Your task to perform on an android device: set the stopwatch Image 0: 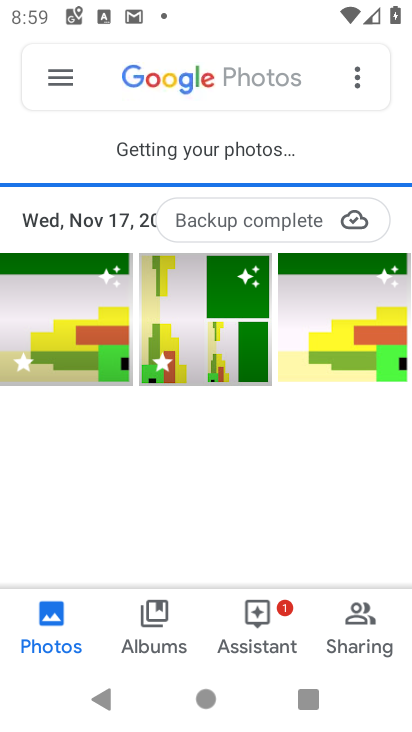
Step 0: click (204, 694)
Your task to perform on an android device: set the stopwatch Image 1: 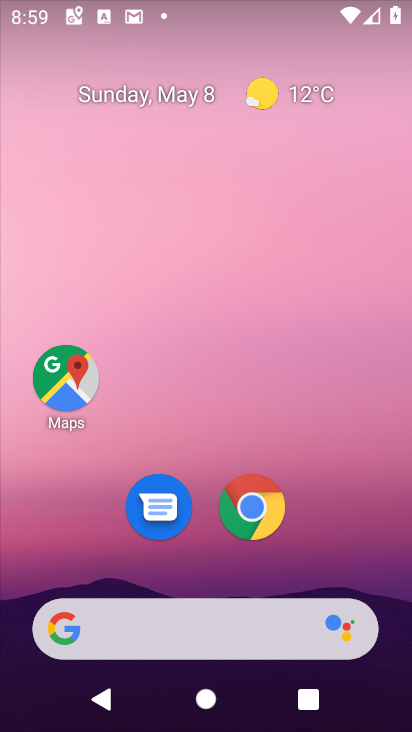
Step 1: drag from (266, 695) to (179, 7)
Your task to perform on an android device: set the stopwatch Image 2: 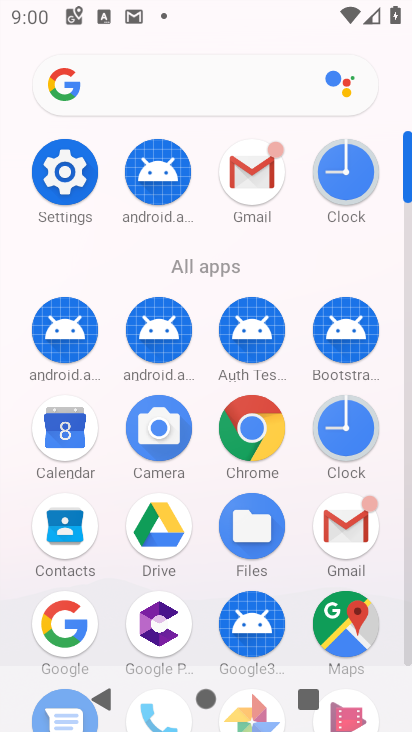
Step 2: click (352, 194)
Your task to perform on an android device: set the stopwatch Image 3: 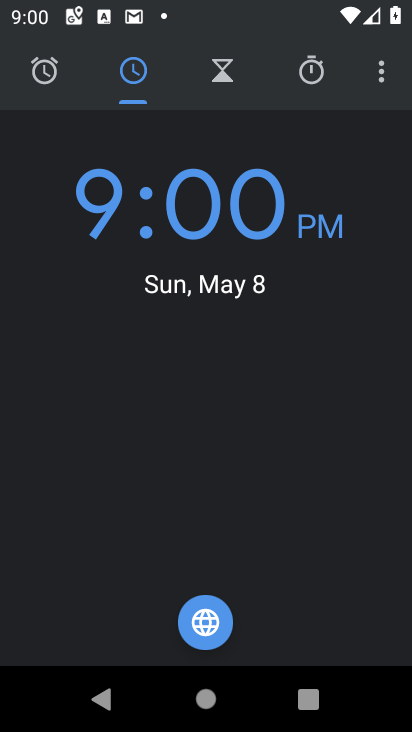
Step 3: click (321, 65)
Your task to perform on an android device: set the stopwatch Image 4: 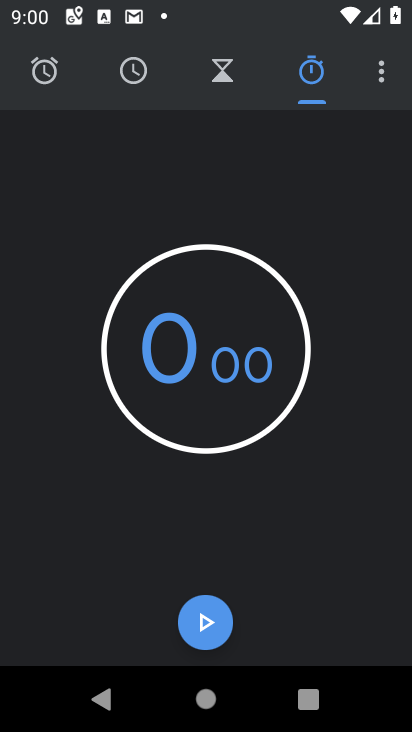
Step 4: click (223, 77)
Your task to perform on an android device: set the stopwatch Image 5: 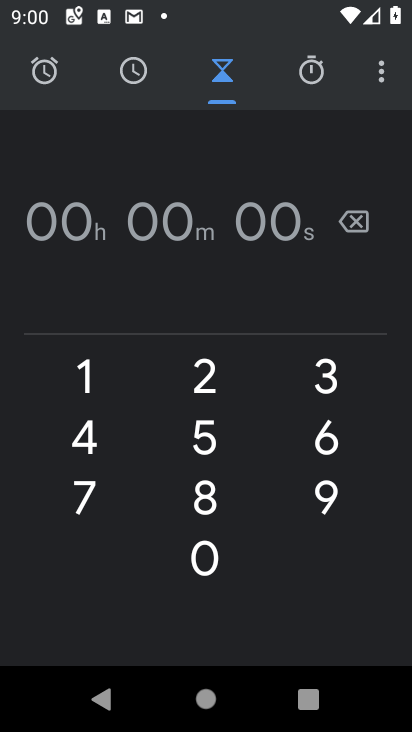
Step 5: click (312, 71)
Your task to perform on an android device: set the stopwatch Image 6: 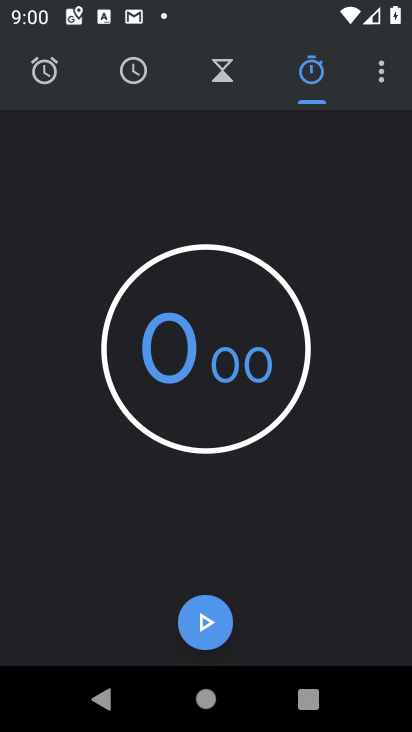
Step 6: task complete